Your task to perform on an android device: search for starred emails in the gmail app Image 0: 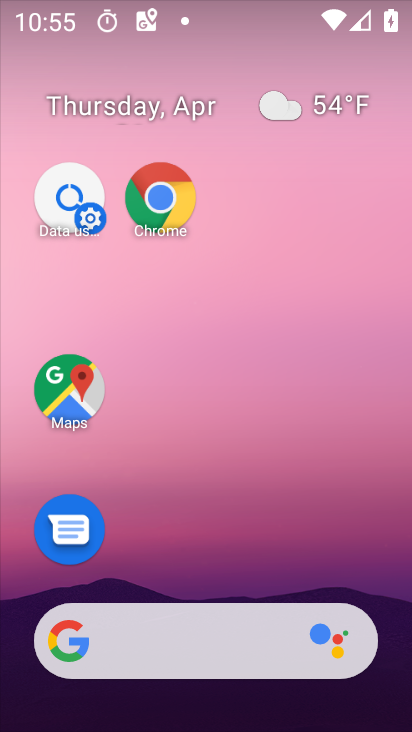
Step 0: drag from (209, 611) to (246, 109)
Your task to perform on an android device: search for starred emails in the gmail app Image 1: 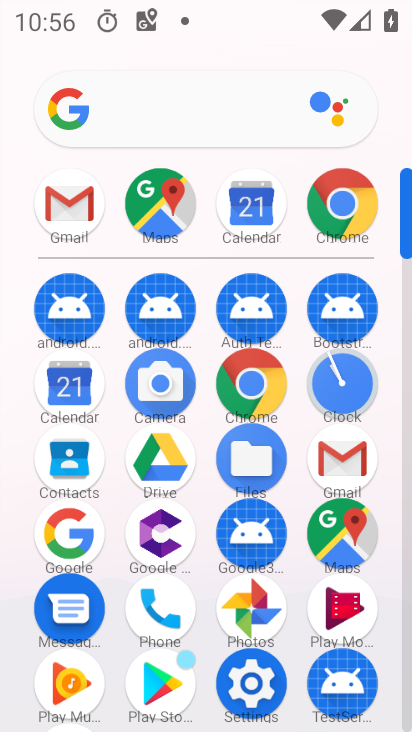
Step 1: click (351, 458)
Your task to perform on an android device: search for starred emails in the gmail app Image 2: 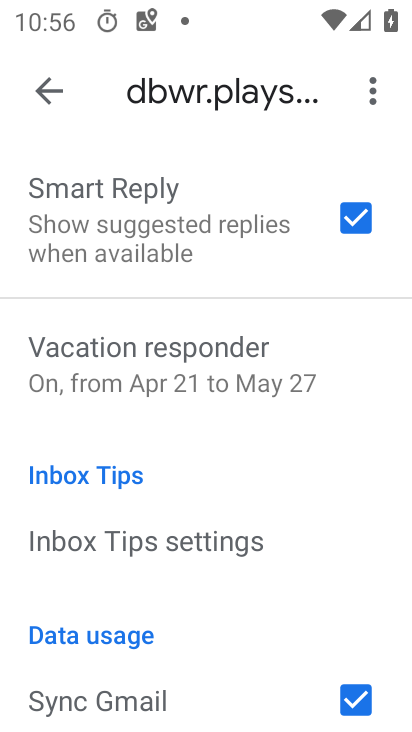
Step 2: click (56, 82)
Your task to perform on an android device: search for starred emails in the gmail app Image 3: 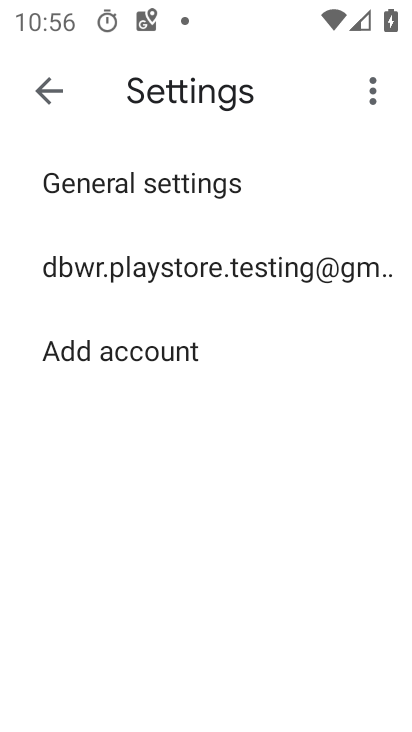
Step 3: click (56, 82)
Your task to perform on an android device: search for starred emails in the gmail app Image 4: 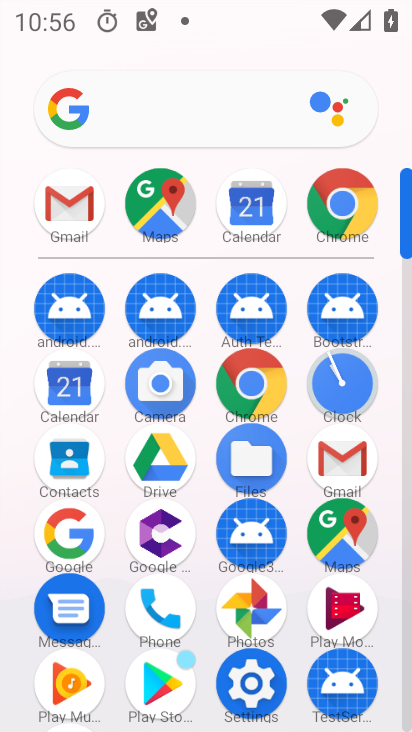
Step 4: click (65, 208)
Your task to perform on an android device: search for starred emails in the gmail app Image 5: 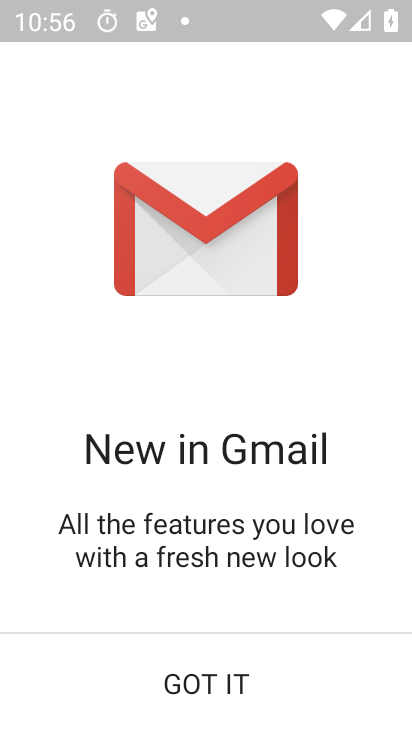
Step 5: click (240, 682)
Your task to perform on an android device: search for starred emails in the gmail app Image 6: 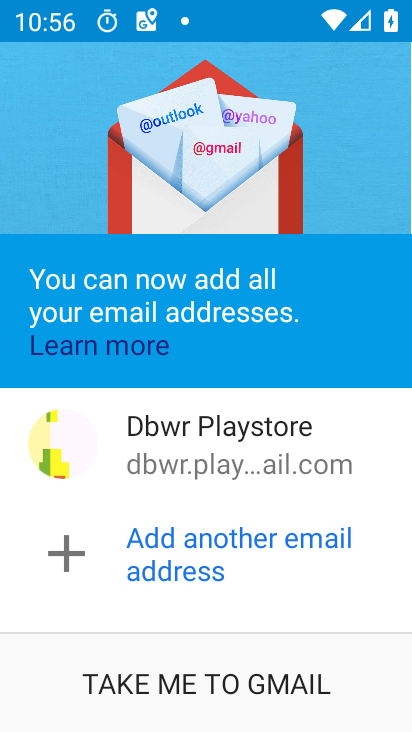
Step 6: click (226, 672)
Your task to perform on an android device: search for starred emails in the gmail app Image 7: 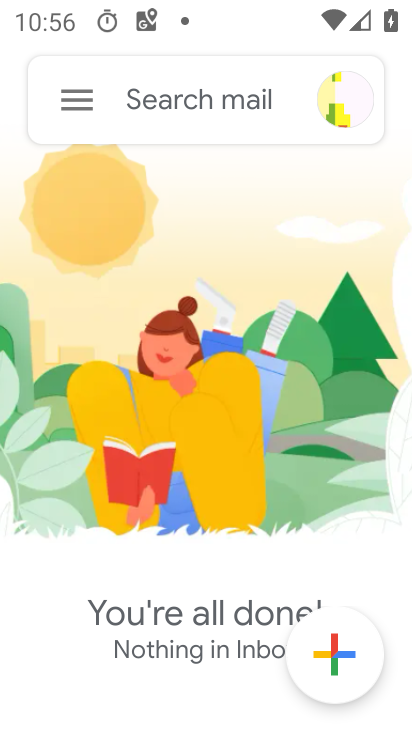
Step 7: click (75, 101)
Your task to perform on an android device: search for starred emails in the gmail app Image 8: 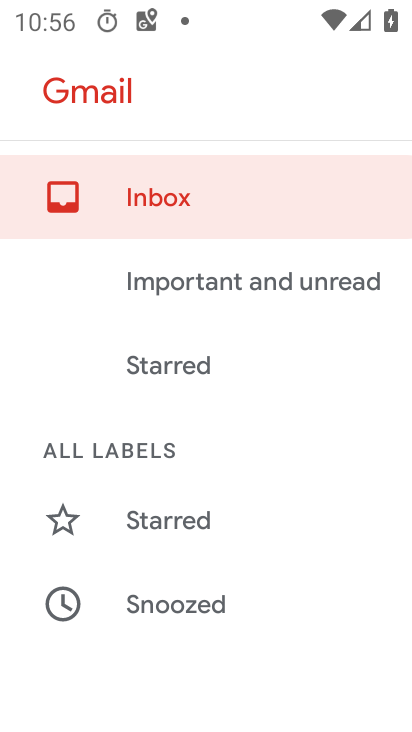
Step 8: click (117, 534)
Your task to perform on an android device: search for starred emails in the gmail app Image 9: 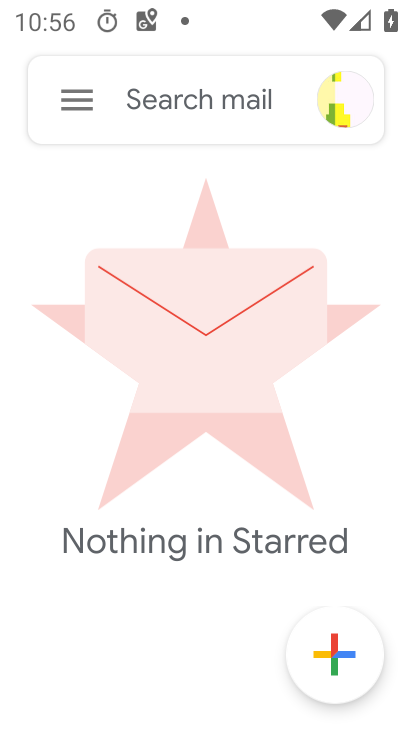
Step 9: task complete